Your task to perform on an android device: check android version Image 0: 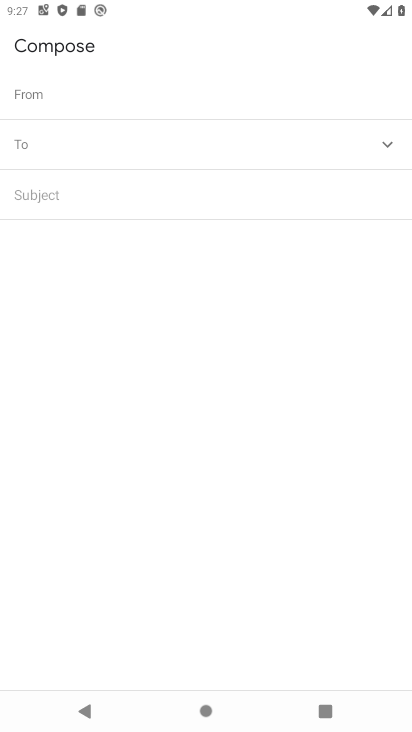
Step 0: click (239, 397)
Your task to perform on an android device: check android version Image 1: 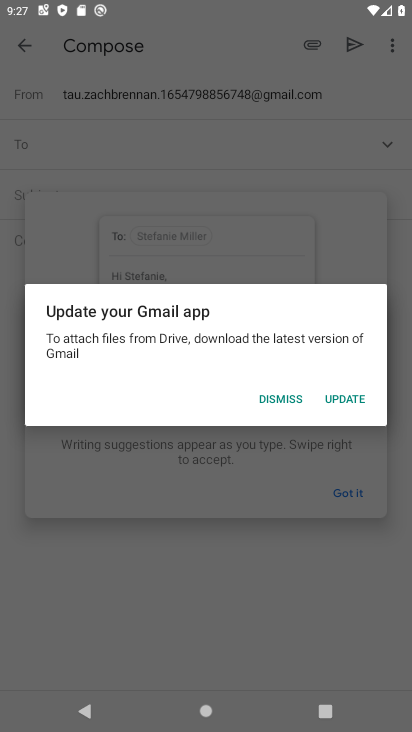
Step 1: press home button
Your task to perform on an android device: check android version Image 2: 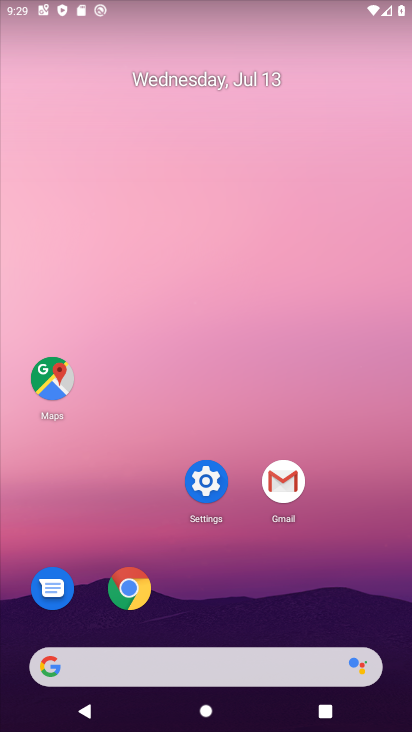
Step 2: click (202, 491)
Your task to perform on an android device: check android version Image 3: 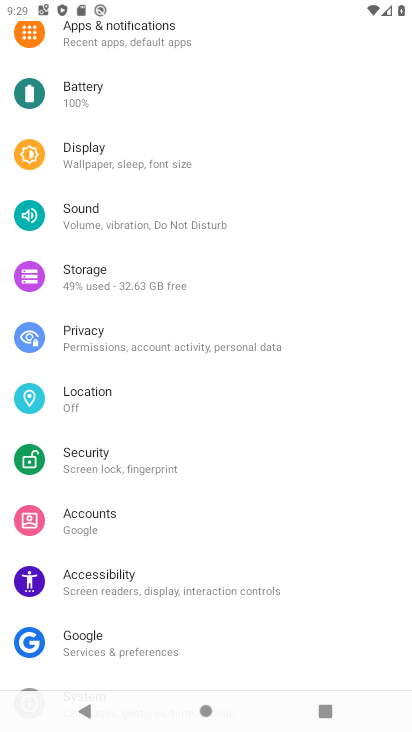
Step 3: drag from (242, 605) to (268, 314)
Your task to perform on an android device: check android version Image 4: 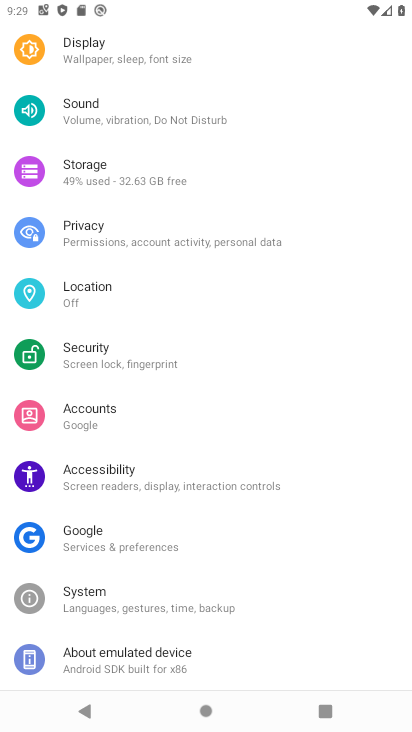
Step 4: click (124, 654)
Your task to perform on an android device: check android version Image 5: 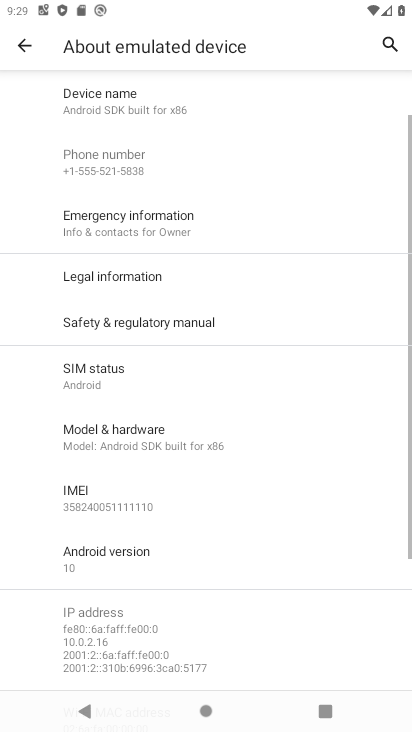
Step 5: click (91, 549)
Your task to perform on an android device: check android version Image 6: 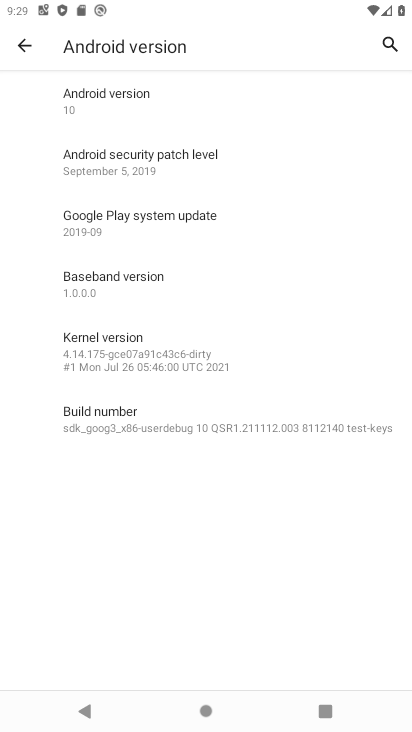
Step 6: task complete